Your task to perform on an android device: turn off sleep mode Image 0: 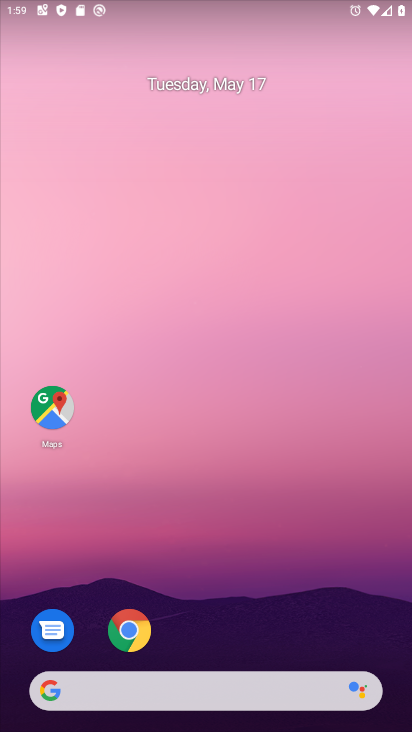
Step 0: drag from (325, 608) to (348, 162)
Your task to perform on an android device: turn off sleep mode Image 1: 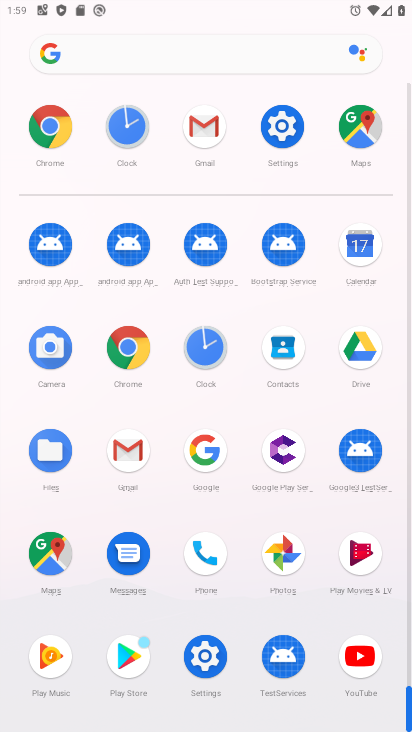
Step 1: click (279, 129)
Your task to perform on an android device: turn off sleep mode Image 2: 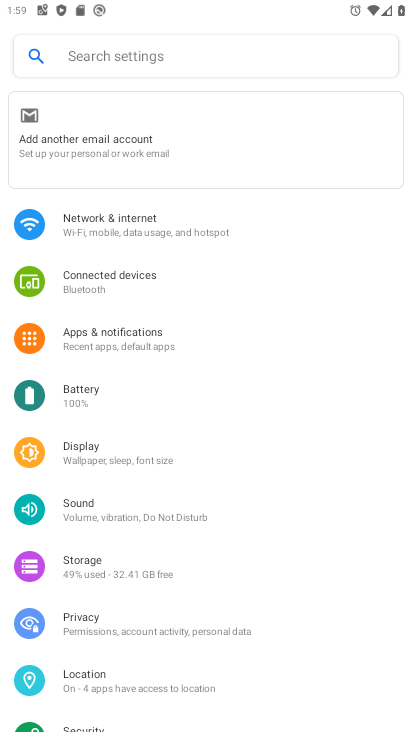
Step 2: click (233, 59)
Your task to perform on an android device: turn off sleep mode Image 3: 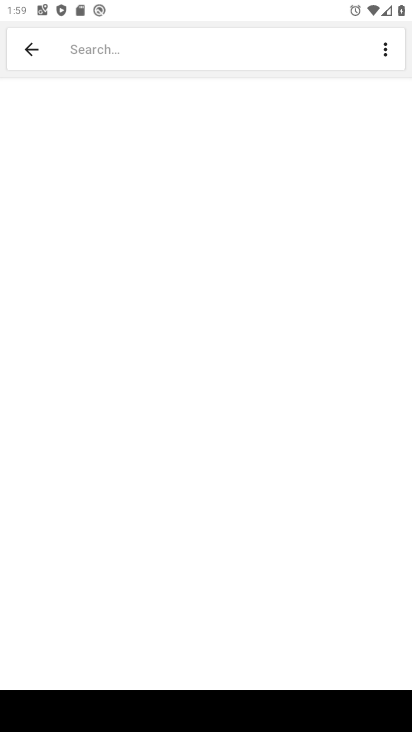
Step 3: type "sleep mode"
Your task to perform on an android device: turn off sleep mode Image 4: 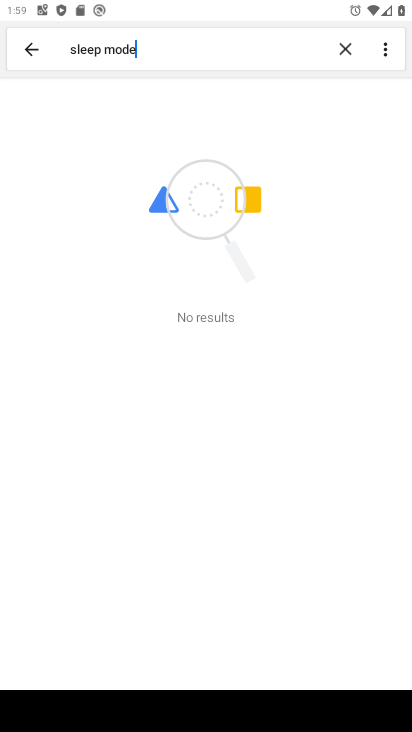
Step 4: task complete